Your task to perform on an android device: install app "Mercado Libre" Image 0: 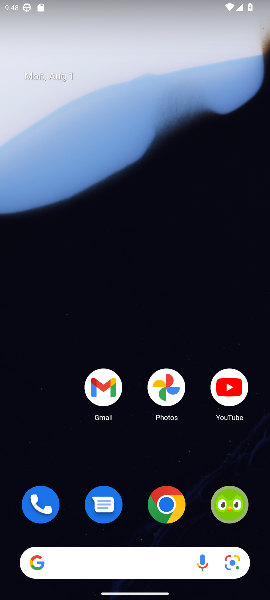
Step 0: drag from (130, 468) to (91, 50)
Your task to perform on an android device: install app "Mercado Libre" Image 1: 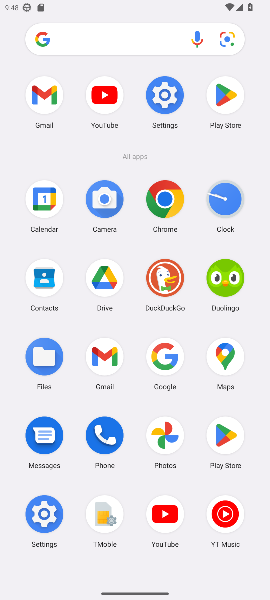
Step 1: click (231, 438)
Your task to perform on an android device: install app "Mercado Libre" Image 2: 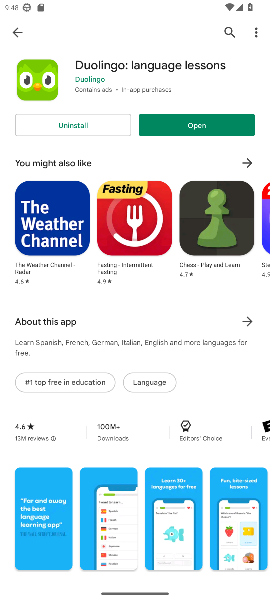
Step 2: click (228, 25)
Your task to perform on an android device: install app "Mercado Libre" Image 3: 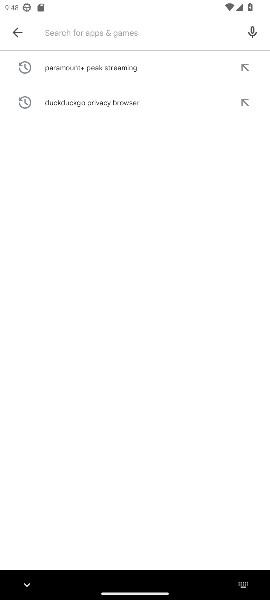
Step 3: type "mercado libre"
Your task to perform on an android device: install app "Mercado Libre" Image 4: 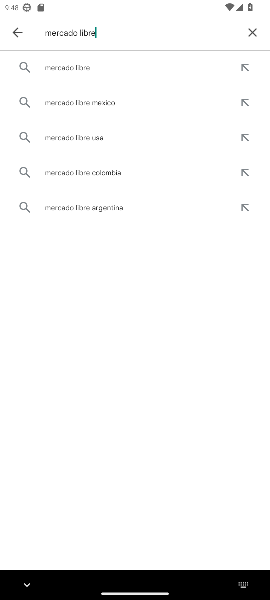
Step 4: click (71, 66)
Your task to perform on an android device: install app "Mercado Libre" Image 5: 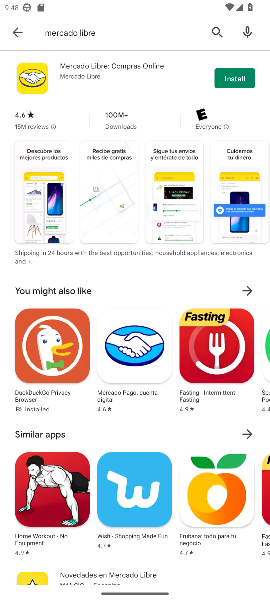
Step 5: click (71, 66)
Your task to perform on an android device: install app "Mercado Libre" Image 6: 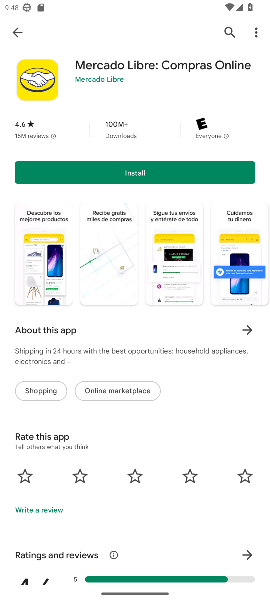
Step 6: click (98, 164)
Your task to perform on an android device: install app "Mercado Libre" Image 7: 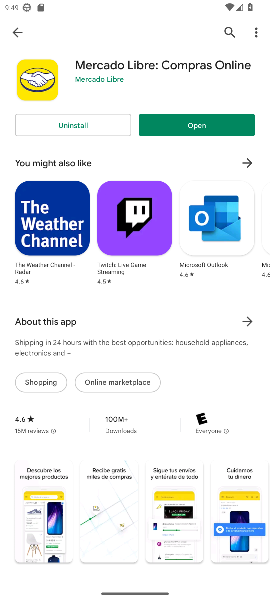
Step 7: task complete